Your task to perform on an android device: Go to battery settings Image 0: 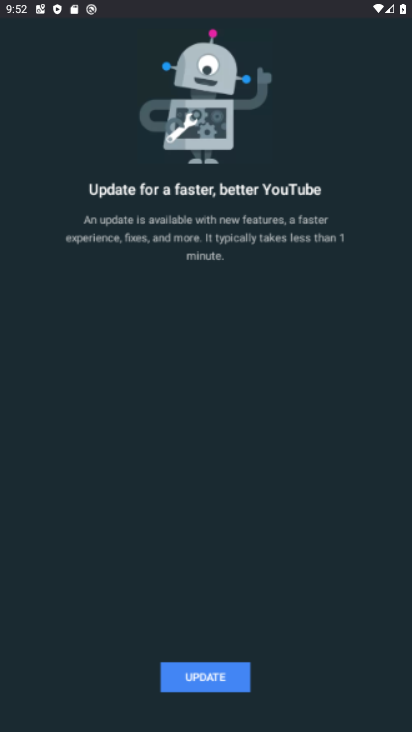
Step 0: press home button
Your task to perform on an android device: Go to battery settings Image 1: 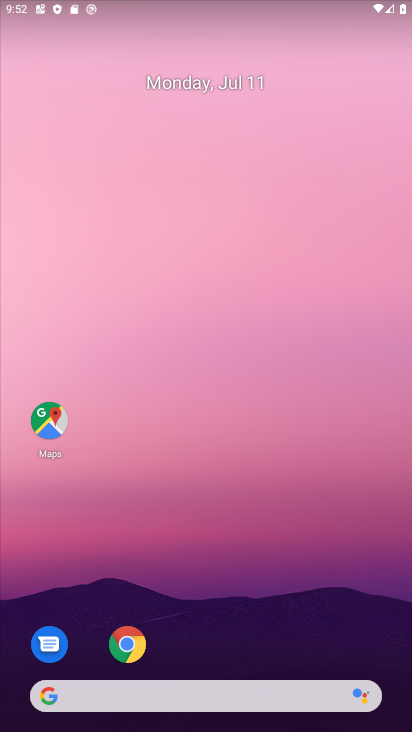
Step 1: drag from (204, 659) to (213, 53)
Your task to perform on an android device: Go to battery settings Image 2: 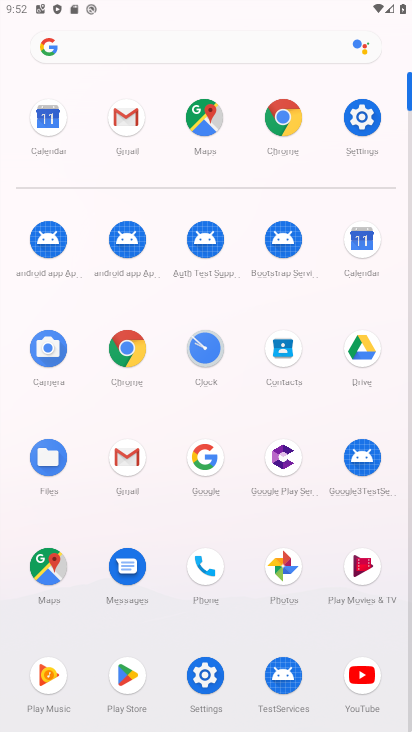
Step 2: click (362, 111)
Your task to perform on an android device: Go to battery settings Image 3: 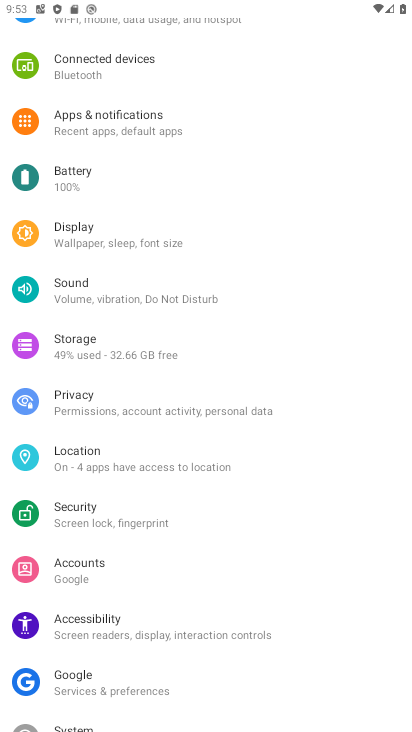
Step 3: click (109, 176)
Your task to perform on an android device: Go to battery settings Image 4: 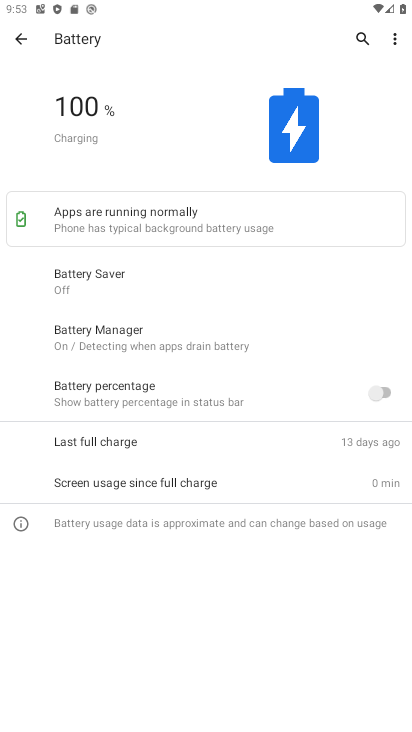
Step 4: task complete